Your task to perform on an android device: Open the web browser Image 0: 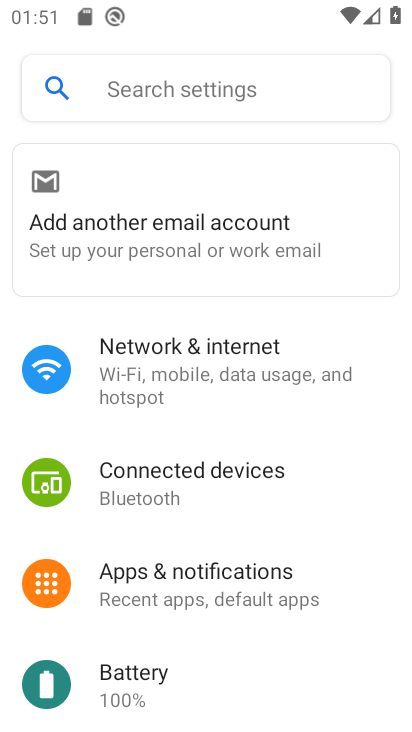
Step 0: press home button
Your task to perform on an android device: Open the web browser Image 1: 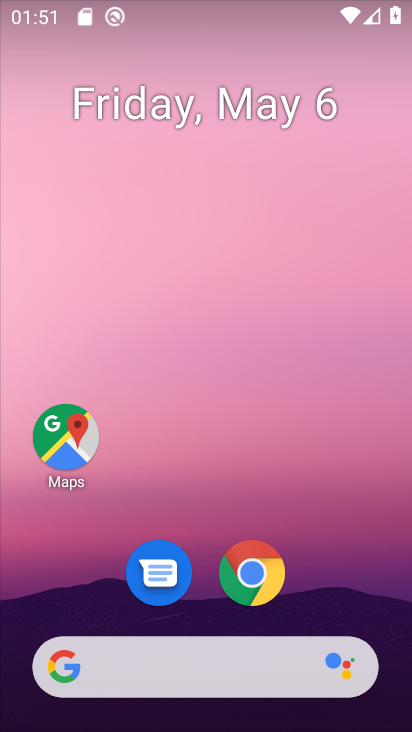
Step 1: drag from (336, 523) to (336, 230)
Your task to perform on an android device: Open the web browser Image 2: 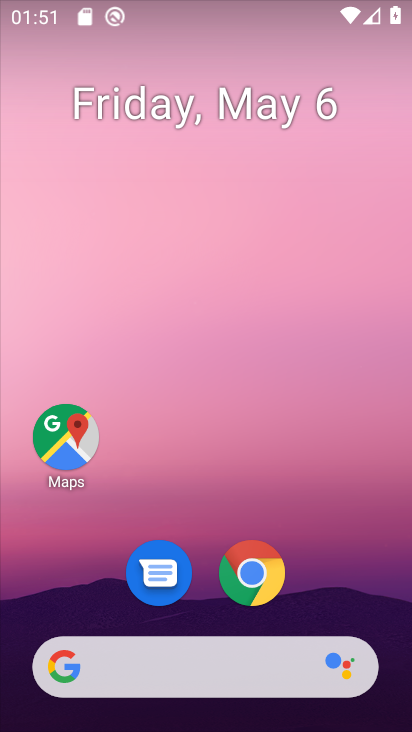
Step 2: drag from (332, 586) to (327, 182)
Your task to perform on an android device: Open the web browser Image 3: 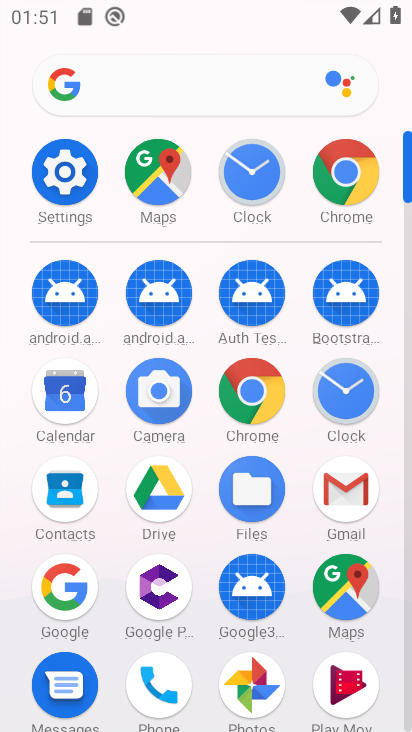
Step 3: click (262, 380)
Your task to perform on an android device: Open the web browser Image 4: 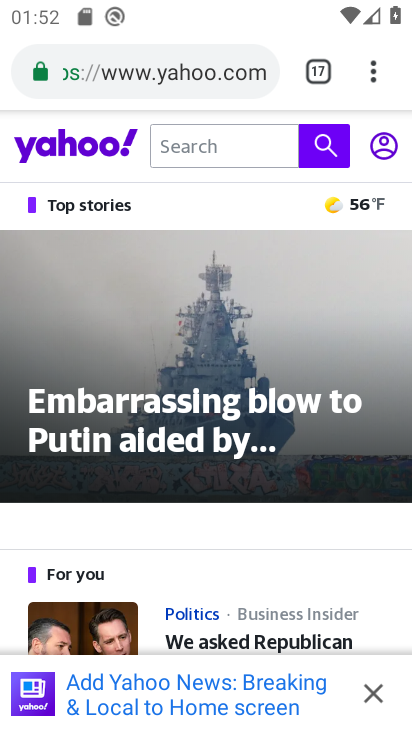
Step 4: task complete